Your task to perform on an android device: Open my contact list Image 0: 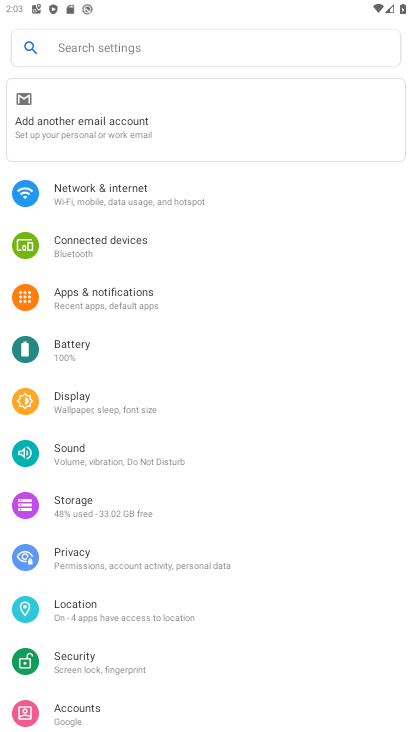
Step 0: press home button
Your task to perform on an android device: Open my contact list Image 1: 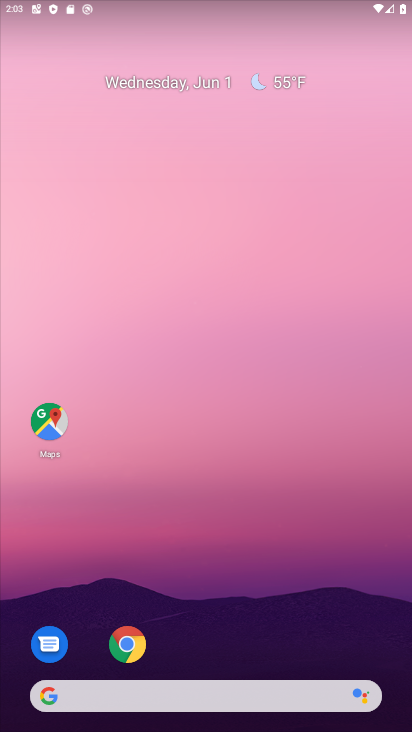
Step 1: drag from (246, 621) to (270, 165)
Your task to perform on an android device: Open my contact list Image 2: 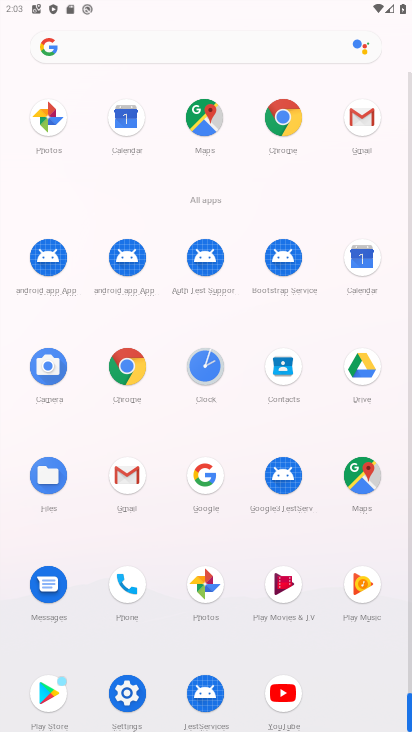
Step 2: click (294, 372)
Your task to perform on an android device: Open my contact list Image 3: 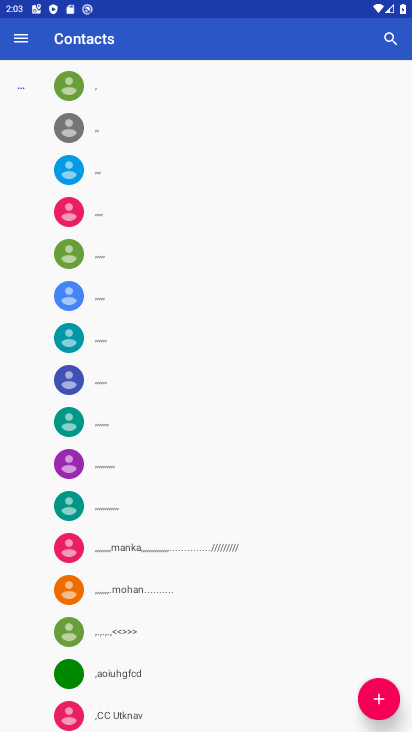
Step 3: task complete